Your task to perform on an android device: Do I have any events this weekend? Image 0: 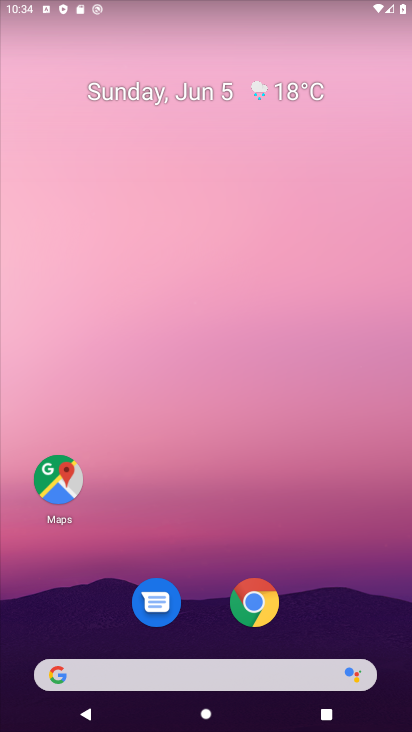
Step 0: task complete